Your task to perform on an android device: turn off sleep mode Image 0: 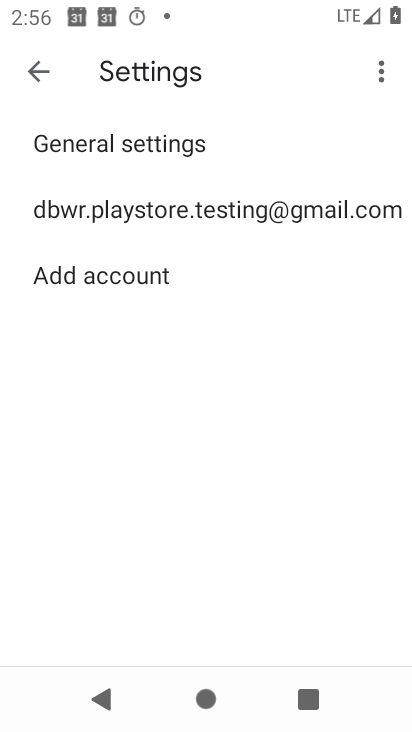
Step 0: press home button
Your task to perform on an android device: turn off sleep mode Image 1: 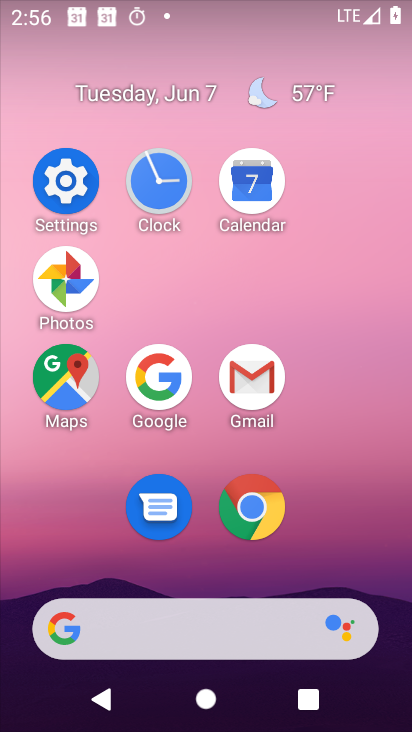
Step 1: click (78, 189)
Your task to perform on an android device: turn off sleep mode Image 2: 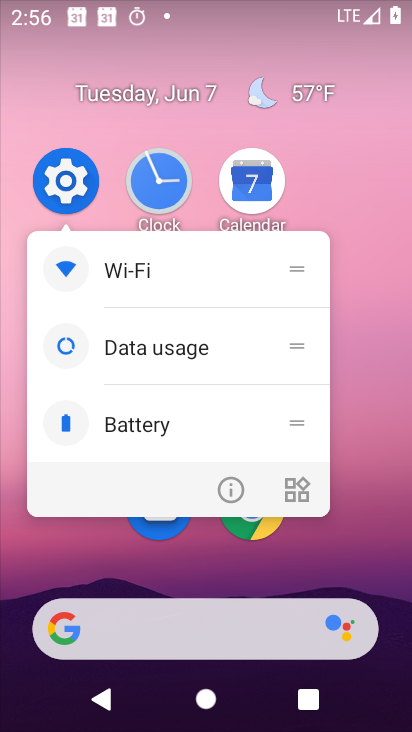
Step 2: click (95, 181)
Your task to perform on an android device: turn off sleep mode Image 3: 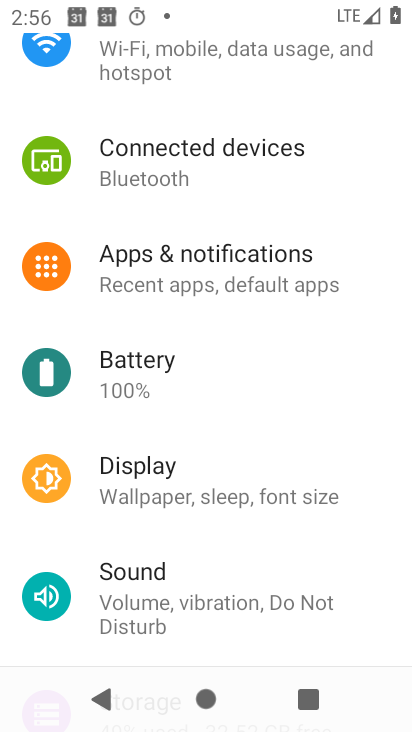
Step 3: click (202, 495)
Your task to perform on an android device: turn off sleep mode Image 4: 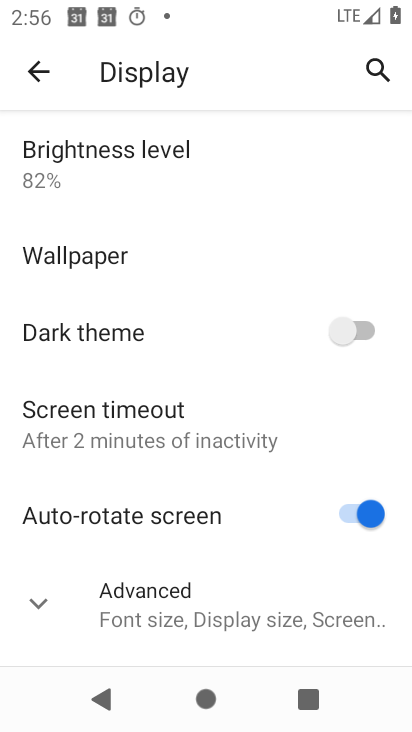
Step 4: click (282, 421)
Your task to perform on an android device: turn off sleep mode Image 5: 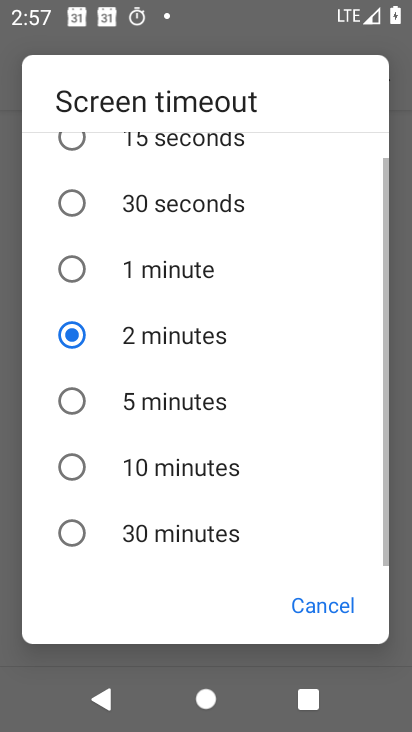
Step 5: task complete